Your task to perform on an android device: Go to display settings Image 0: 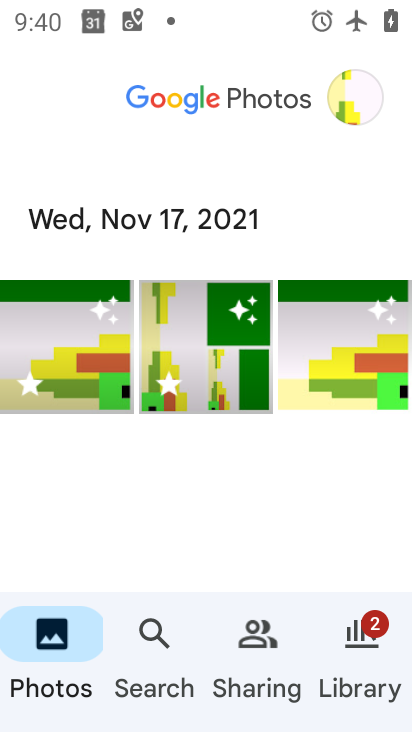
Step 0: press home button
Your task to perform on an android device: Go to display settings Image 1: 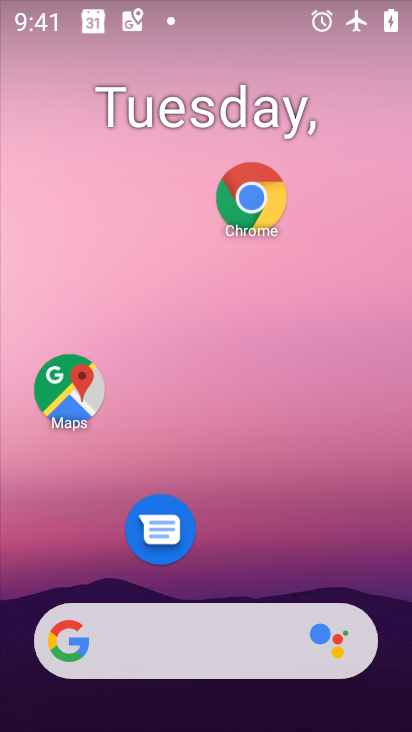
Step 1: drag from (305, 542) to (292, 54)
Your task to perform on an android device: Go to display settings Image 2: 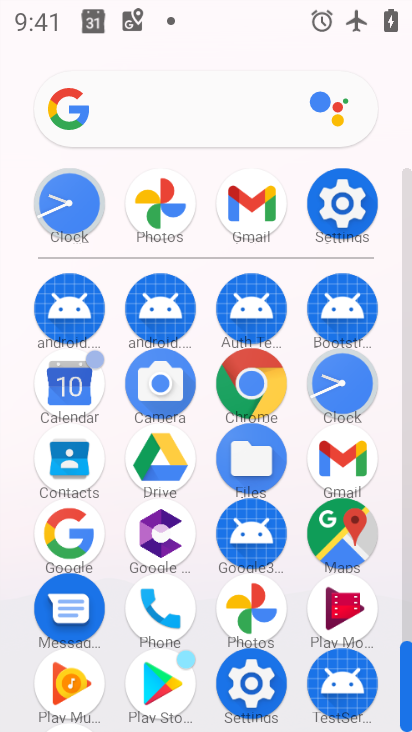
Step 2: click (358, 193)
Your task to perform on an android device: Go to display settings Image 3: 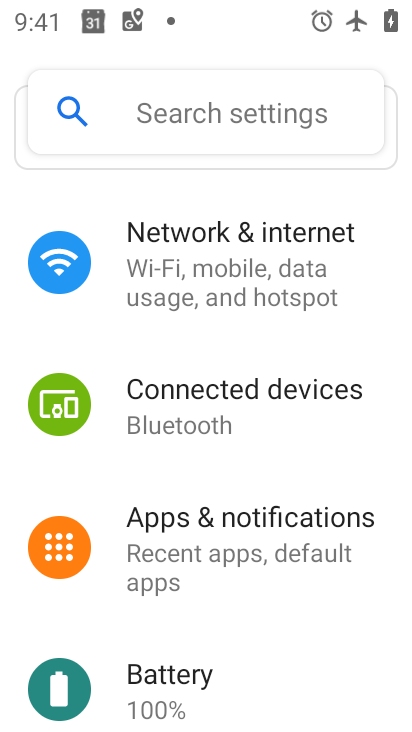
Step 3: drag from (215, 661) to (240, 319)
Your task to perform on an android device: Go to display settings Image 4: 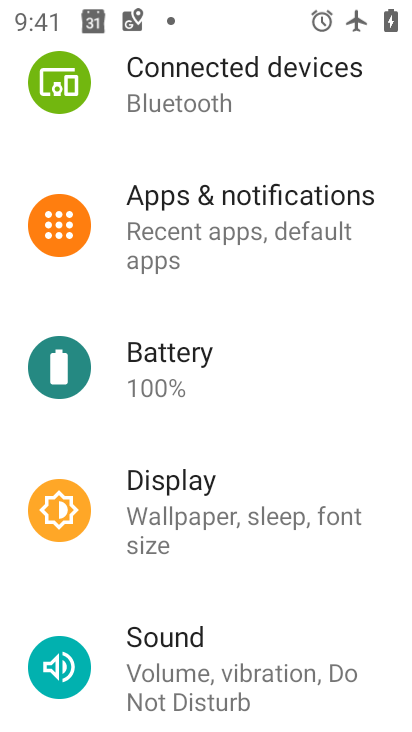
Step 4: click (232, 502)
Your task to perform on an android device: Go to display settings Image 5: 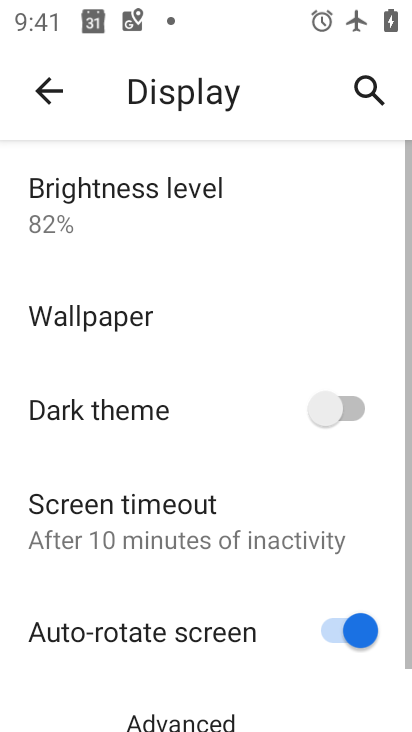
Step 5: task complete